Your task to perform on an android device: turn on sleep mode Image 0: 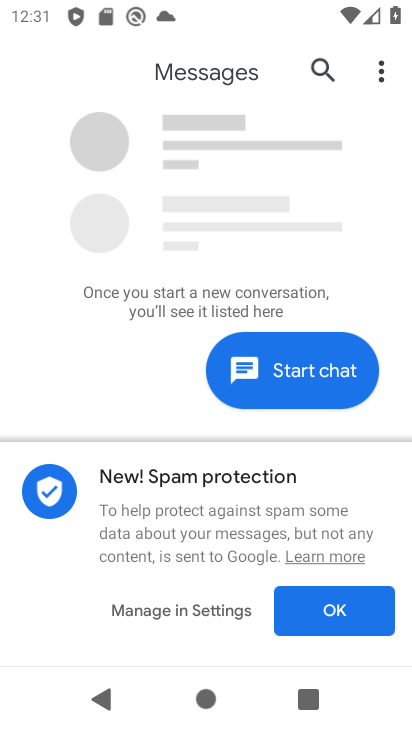
Step 0: drag from (321, 514) to (399, 207)
Your task to perform on an android device: turn on sleep mode Image 1: 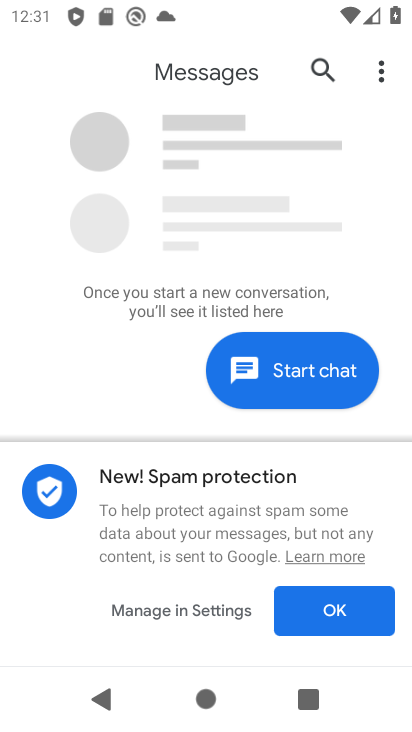
Step 1: press home button
Your task to perform on an android device: turn on sleep mode Image 2: 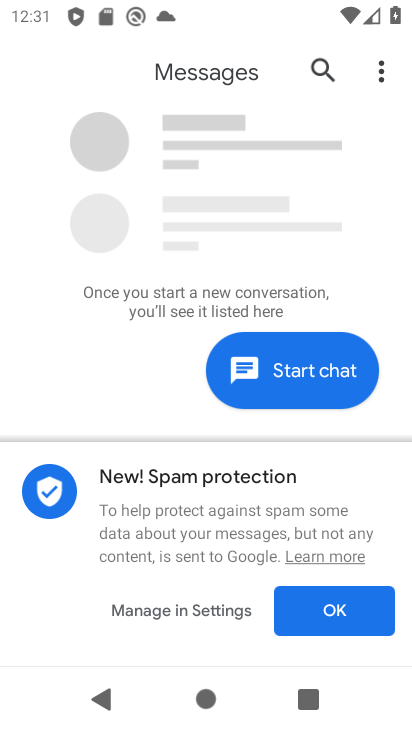
Step 2: drag from (399, 207) to (388, 329)
Your task to perform on an android device: turn on sleep mode Image 3: 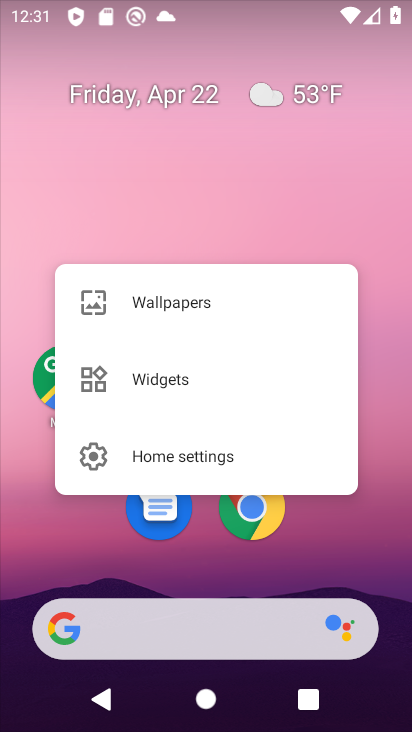
Step 3: click (311, 536)
Your task to perform on an android device: turn on sleep mode Image 4: 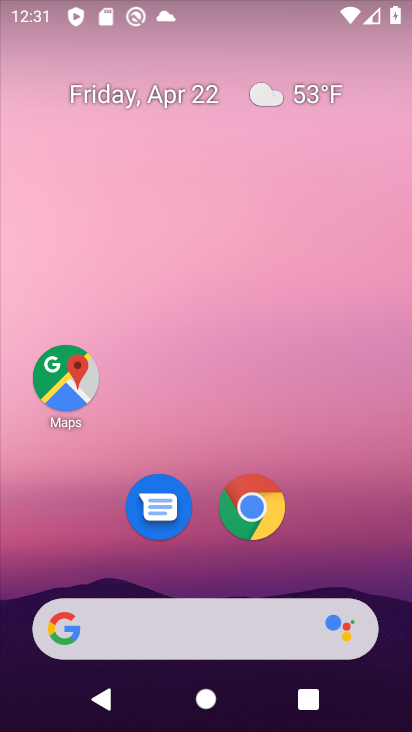
Step 4: drag from (301, 509) to (254, 84)
Your task to perform on an android device: turn on sleep mode Image 5: 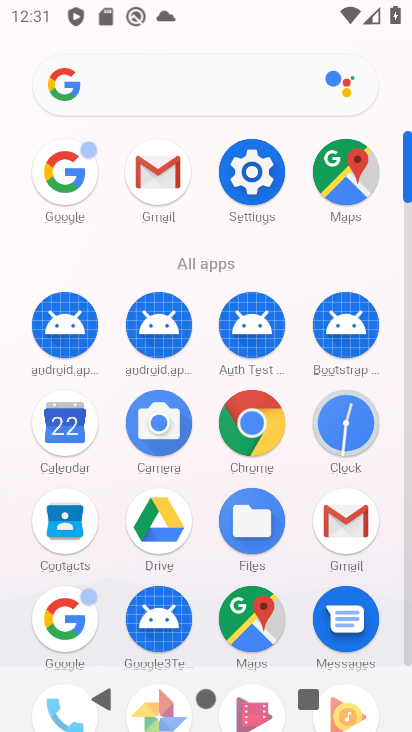
Step 5: click (265, 167)
Your task to perform on an android device: turn on sleep mode Image 6: 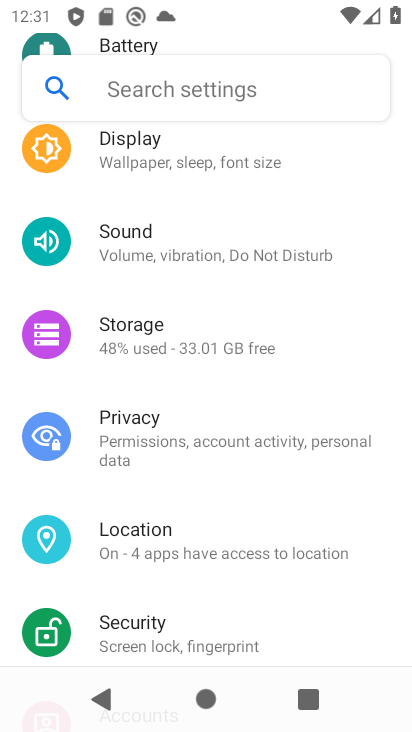
Step 6: click (214, 159)
Your task to perform on an android device: turn on sleep mode Image 7: 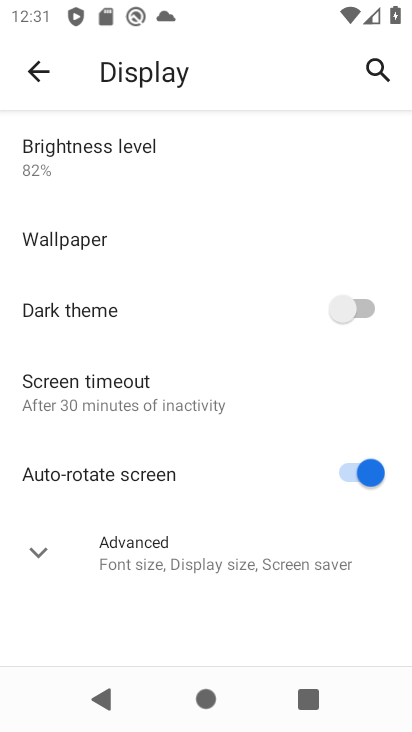
Step 7: click (147, 563)
Your task to perform on an android device: turn on sleep mode Image 8: 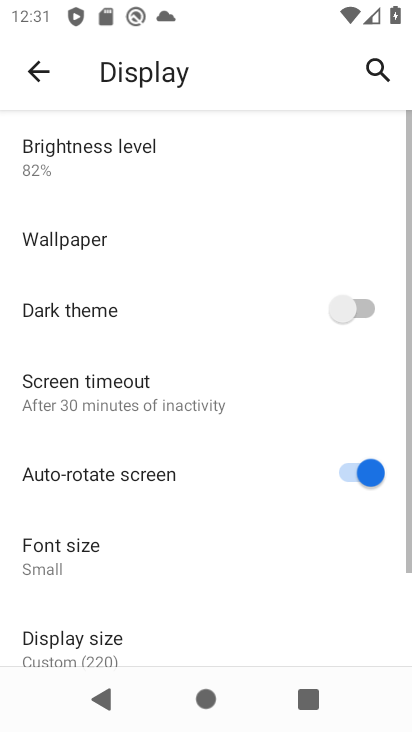
Step 8: task complete